Your task to perform on an android device: Open Google Chrome and click the shortcut for Amazon.com Image 0: 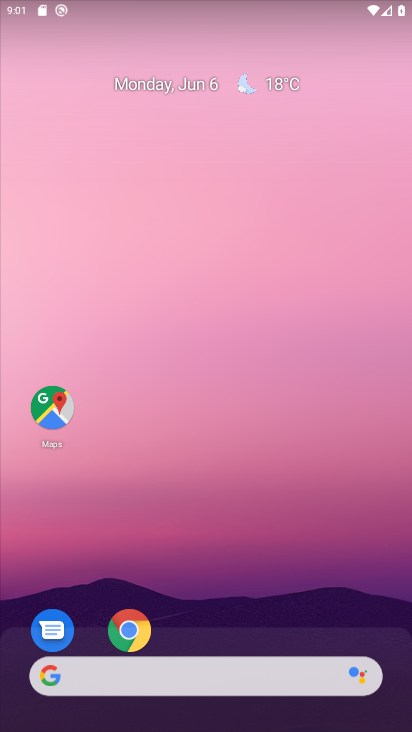
Step 0: click (122, 632)
Your task to perform on an android device: Open Google Chrome and click the shortcut for Amazon.com Image 1: 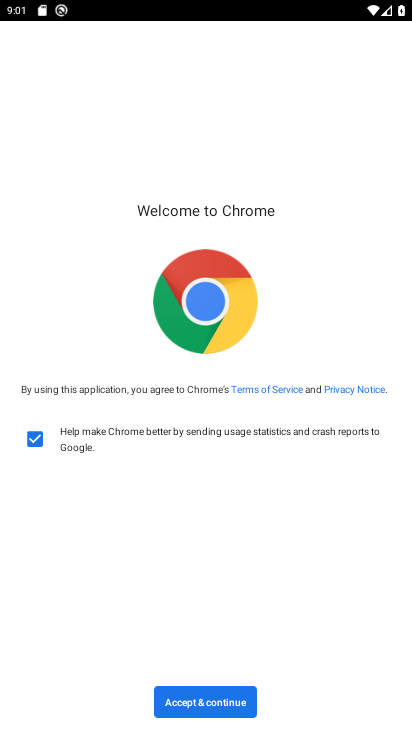
Step 1: click (208, 694)
Your task to perform on an android device: Open Google Chrome and click the shortcut for Amazon.com Image 2: 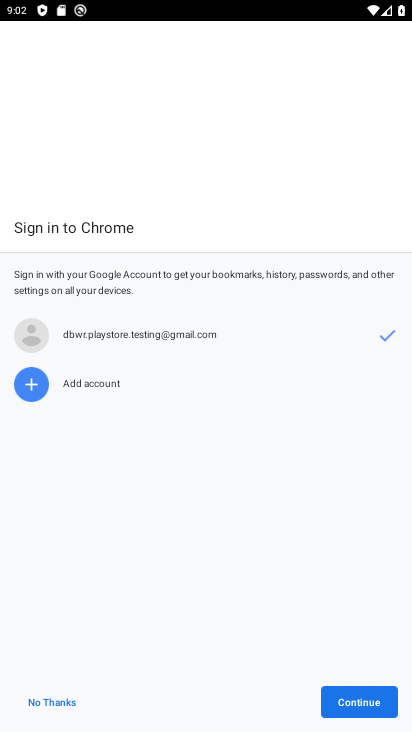
Step 2: click (337, 705)
Your task to perform on an android device: Open Google Chrome and click the shortcut for Amazon.com Image 3: 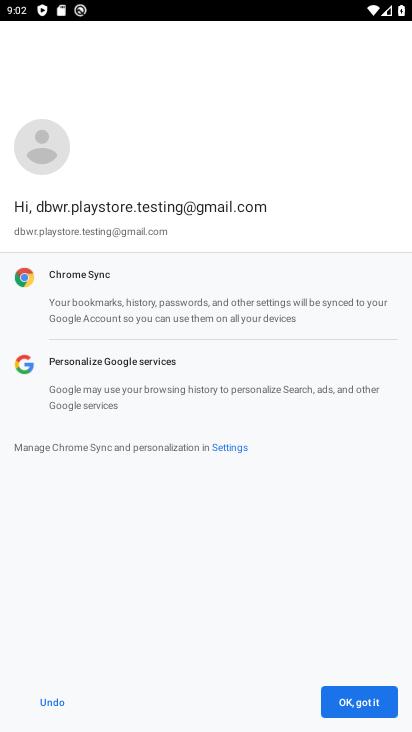
Step 3: click (338, 706)
Your task to perform on an android device: Open Google Chrome and click the shortcut for Amazon.com Image 4: 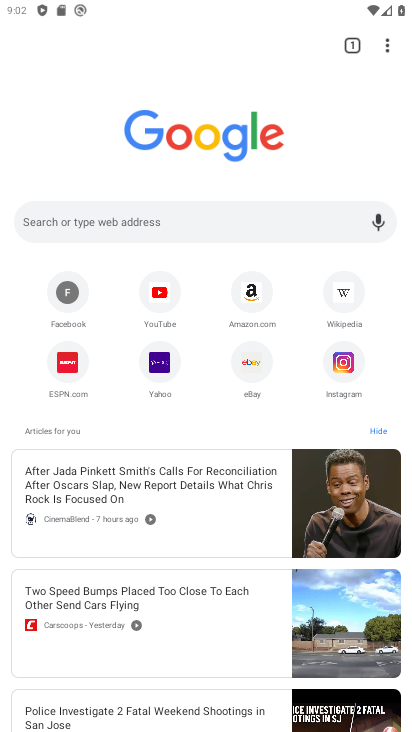
Step 4: click (249, 299)
Your task to perform on an android device: Open Google Chrome and click the shortcut for Amazon.com Image 5: 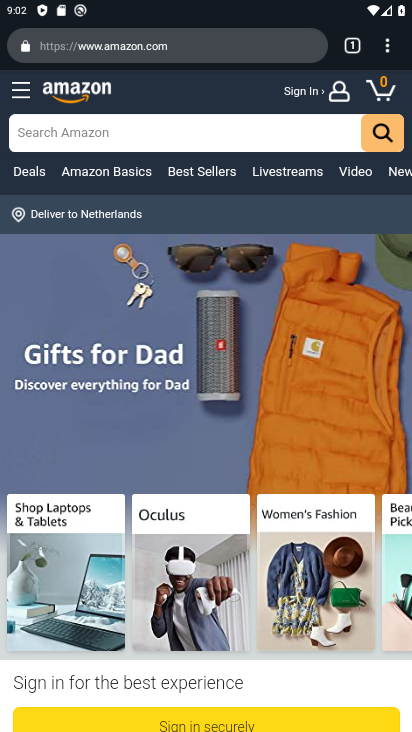
Step 5: task complete